Your task to perform on an android device: stop showing notifications on the lock screen Image 0: 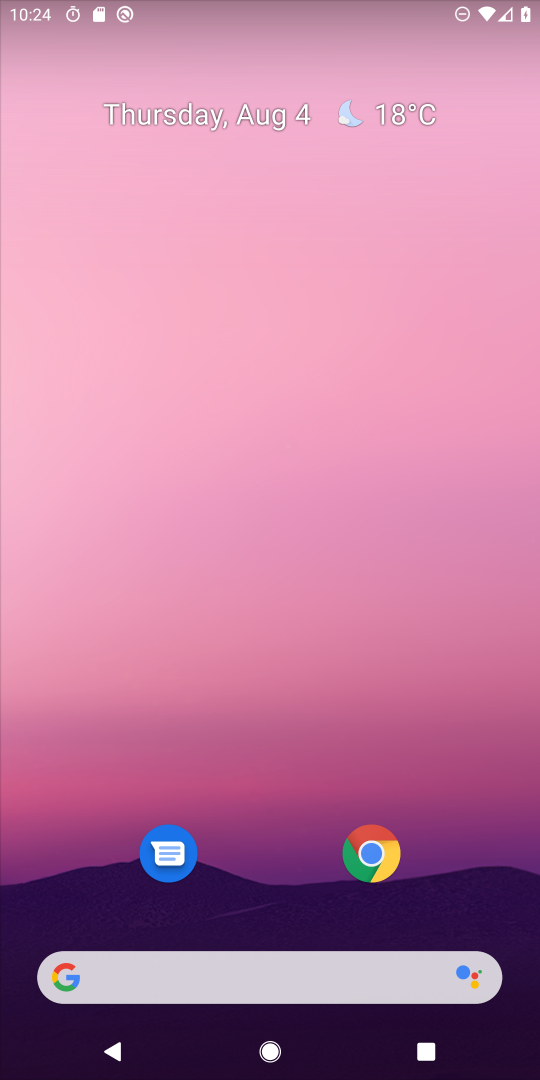
Step 0: drag from (240, 828) to (425, 446)
Your task to perform on an android device: stop showing notifications on the lock screen Image 1: 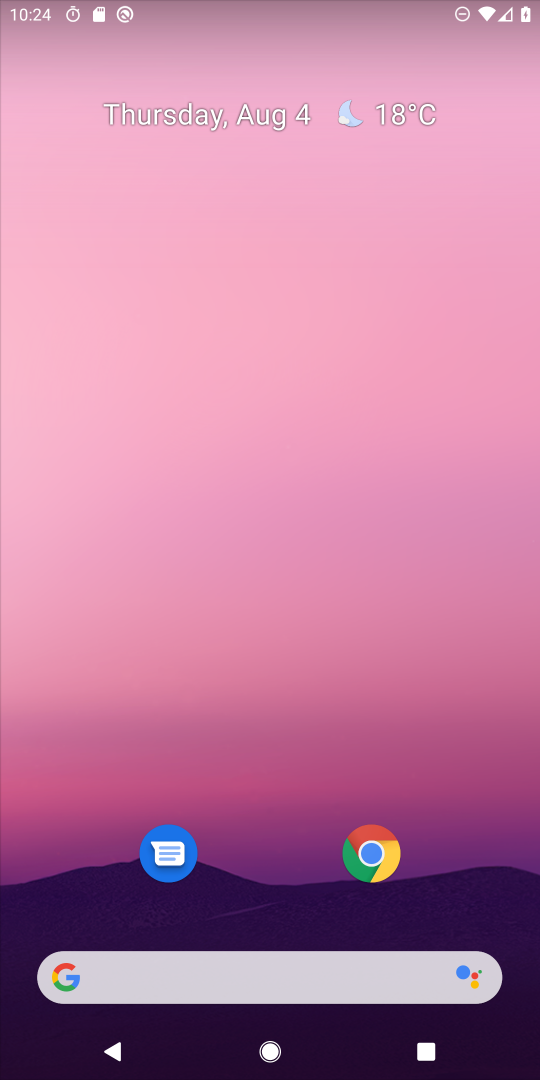
Step 1: drag from (296, 775) to (381, 0)
Your task to perform on an android device: stop showing notifications on the lock screen Image 2: 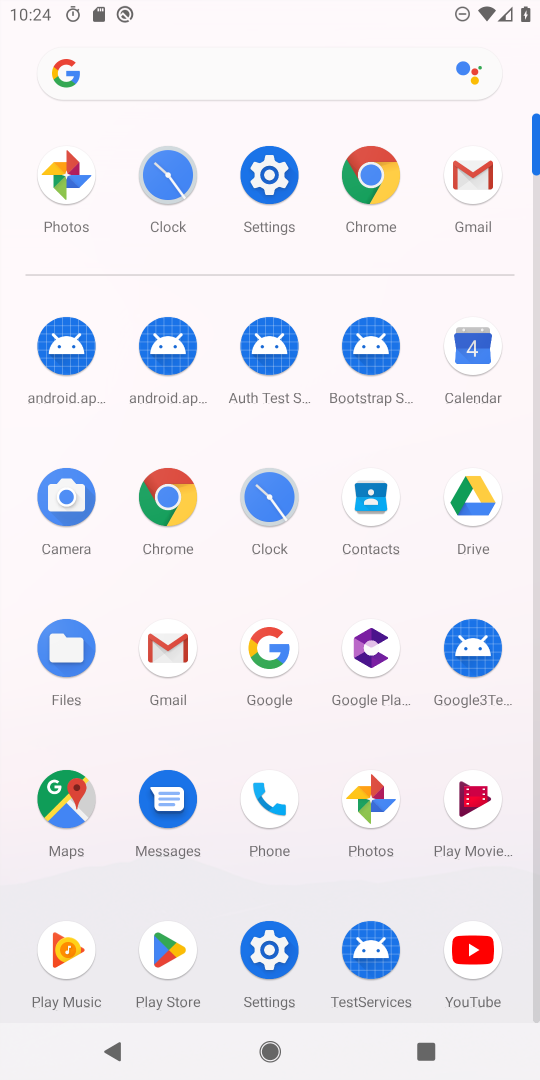
Step 2: click (286, 167)
Your task to perform on an android device: stop showing notifications on the lock screen Image 3: 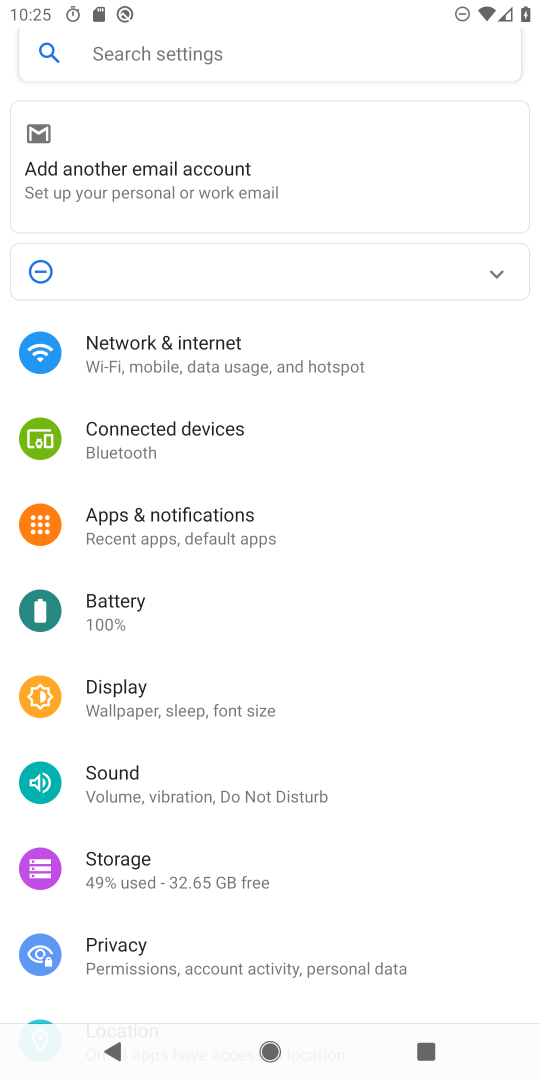
Step 3: click (170, 533)
Your task to perform on an android device: stop showing notifications on the lock screen Image 4: 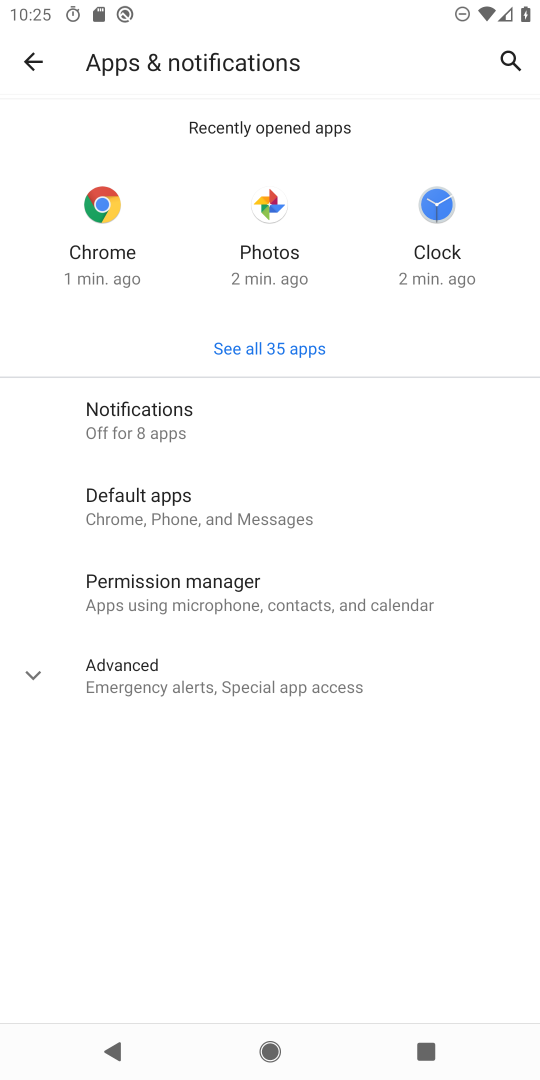
Step 4: click (149, 426)
Your task to perform on an android device: stop showing notifications on the lock screen Image 5: 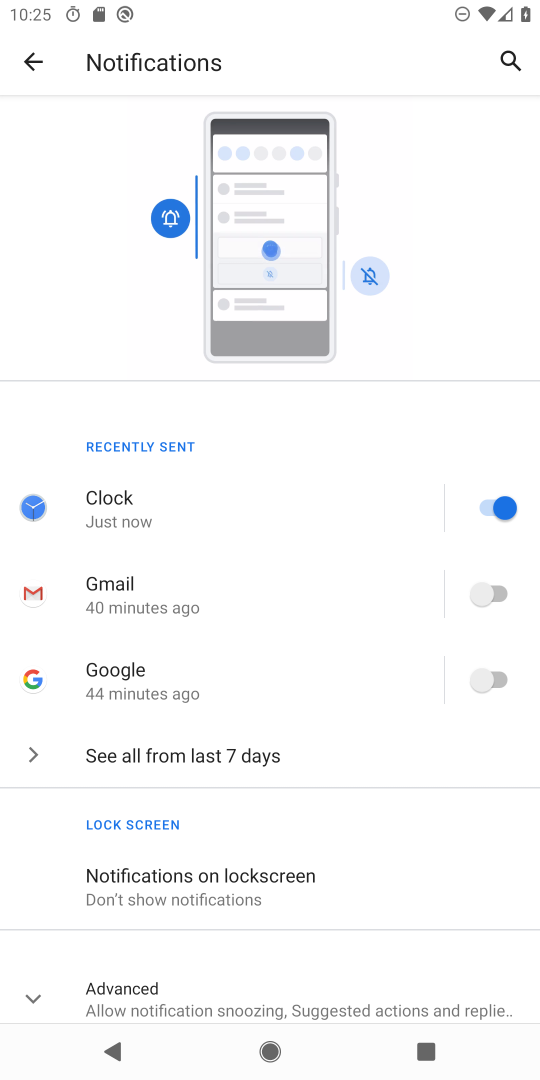
Step 5: click (179, 890)
Your task to perform on an android device: stop showing notifications on the lock screen Image 6: 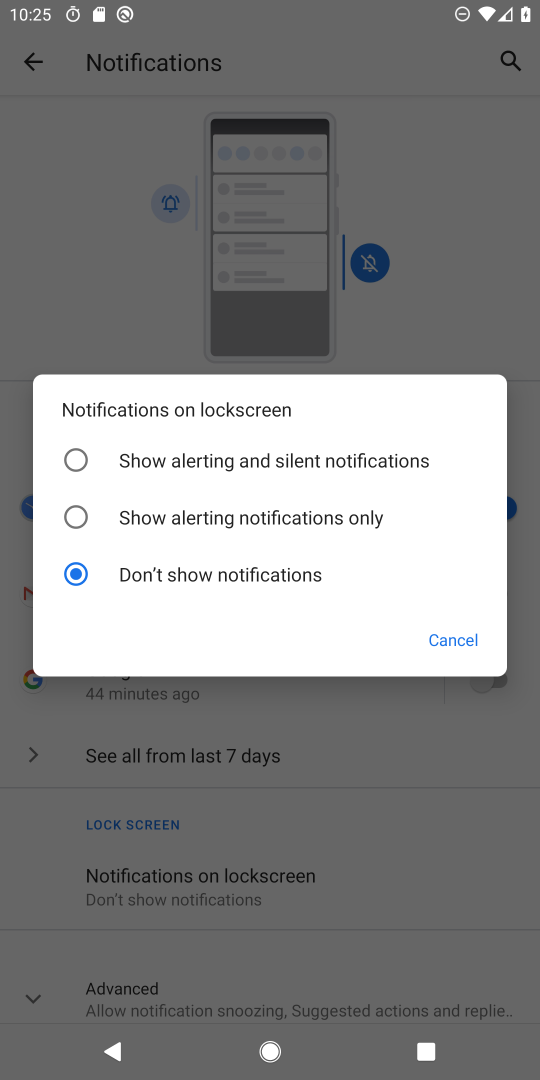
Step 6: task complete